Your task to perform on an android device: Search for the top rated book on goodreads. Image 0: 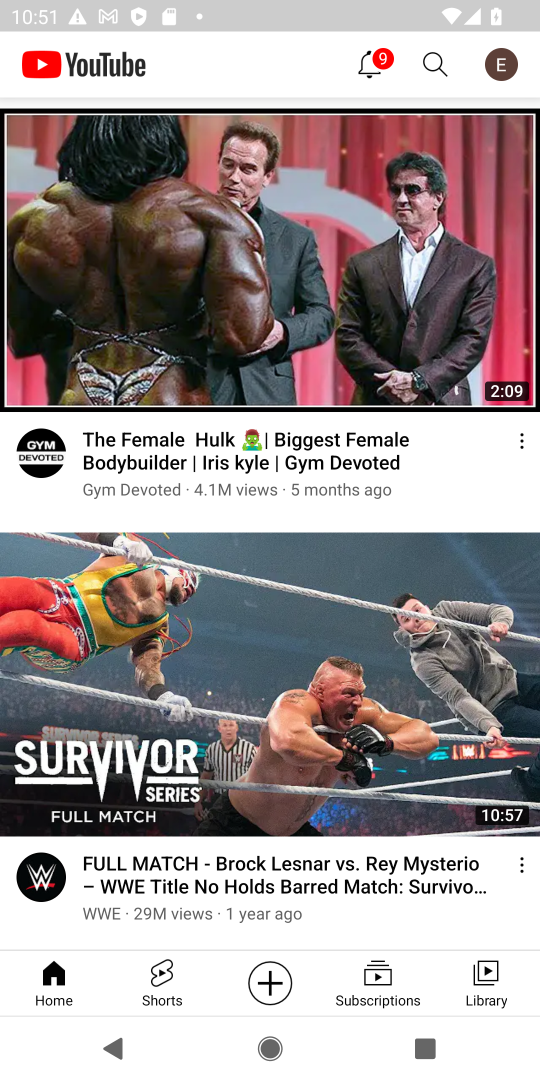
Step 0: press home button
Your task to perform on an android device: Search for the top rated book on goodreads. Image 1: 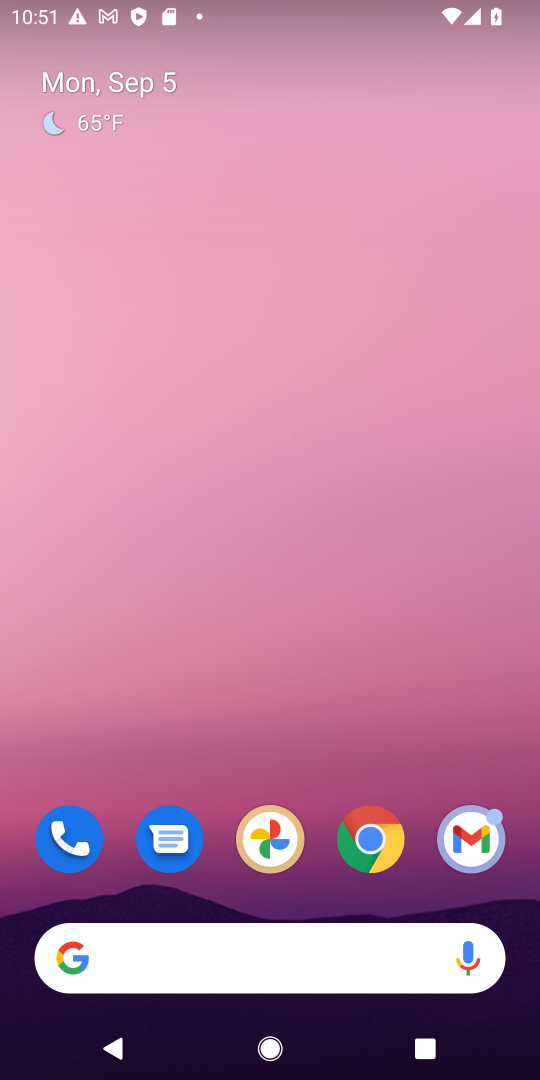
Step 1: drag from (219, 866) to (309, 18)
Your task to perform on an android device: Search for the top rated book on goodreads. Image 2: 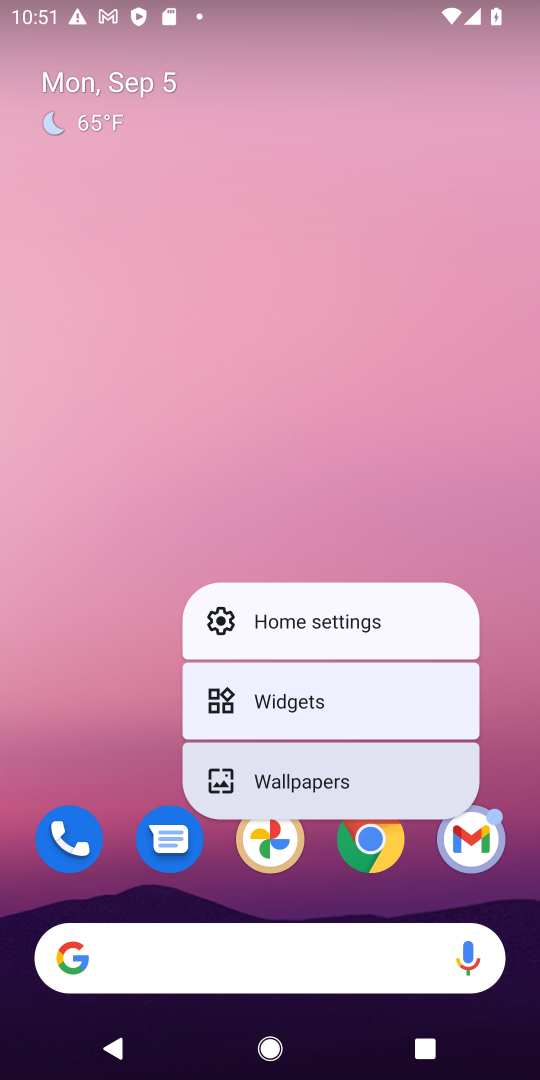
Step 2: click (173, 905)
Your task to perform on an android device: Search for the top rated book on goodreads. Image 3: 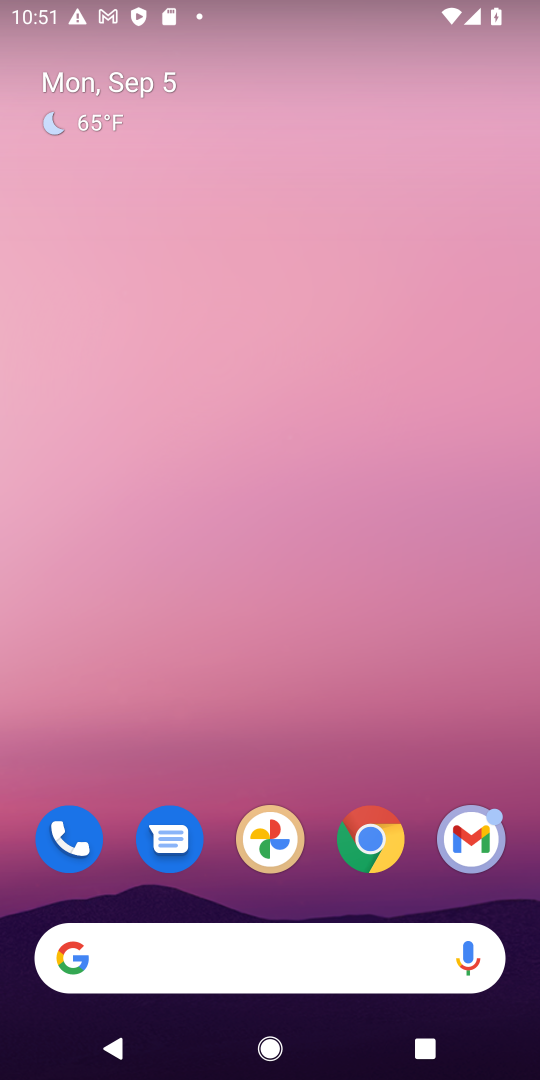
Step 3: drag from (199, 917) to (206, 187)
Your task to perform on an android device: Search for the top rated book on goodreads. Image 4: 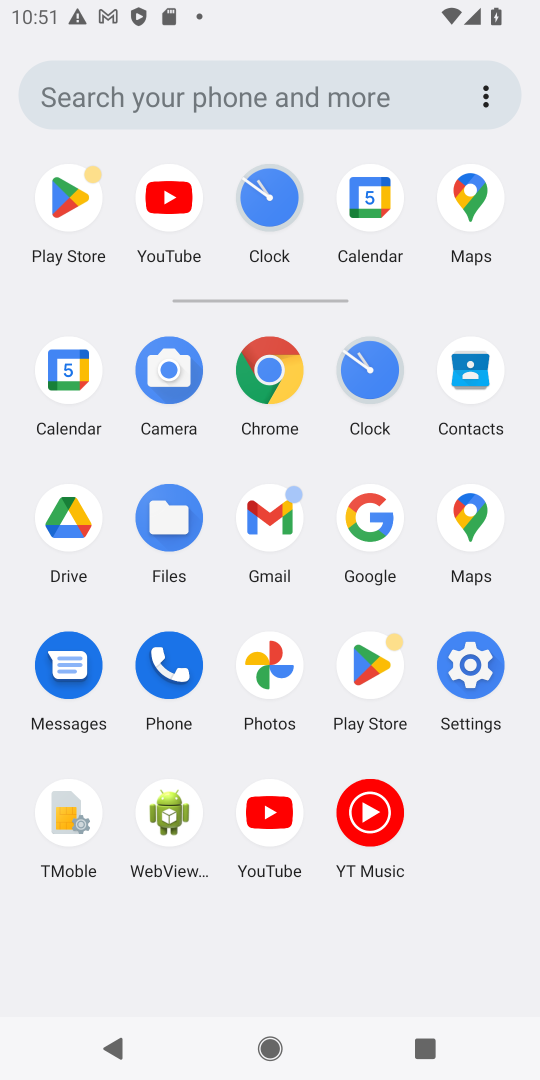
Step 4: click (356, 517)
Your task to perform on an android device: Search for the top rated book on goodreads. Image 5: 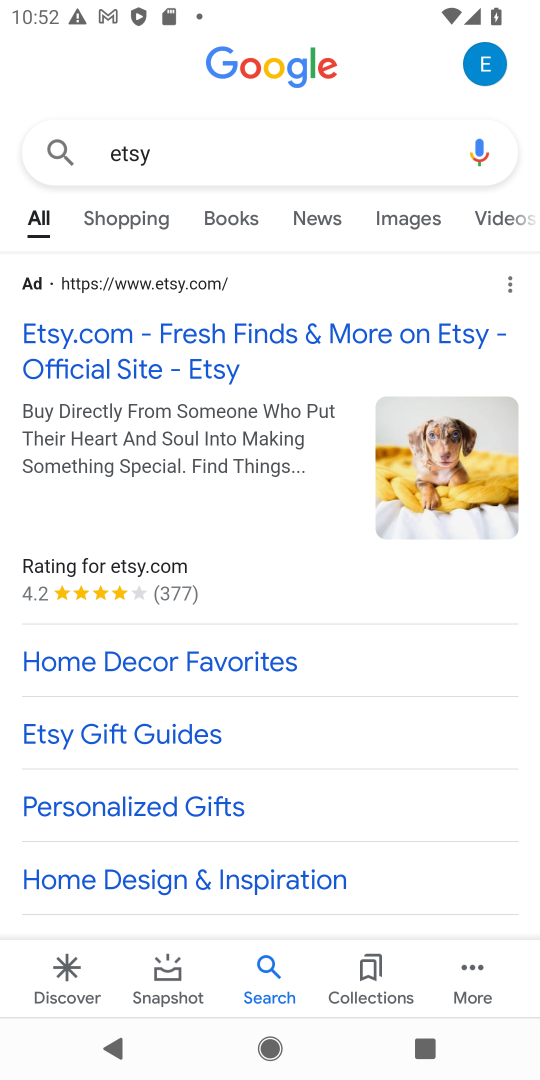
Step 5: click (291, 160)
Your task to perform on an android device: Search for the top rated book on goodreads. Image 6: 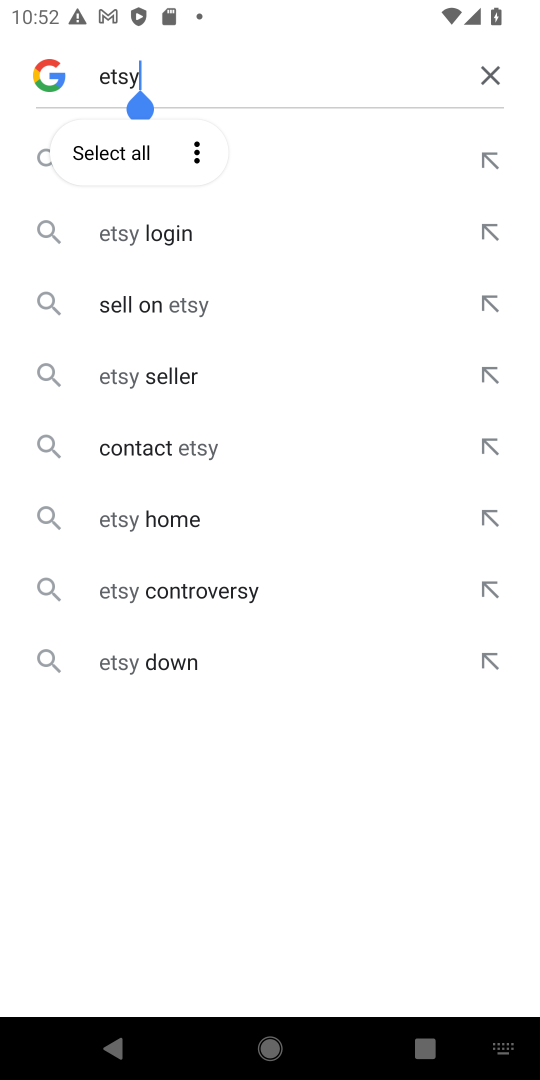
Step 6: click (496, 65)
Your task to perform on an android device: Search for the top rated book on goodreads. Image 7: 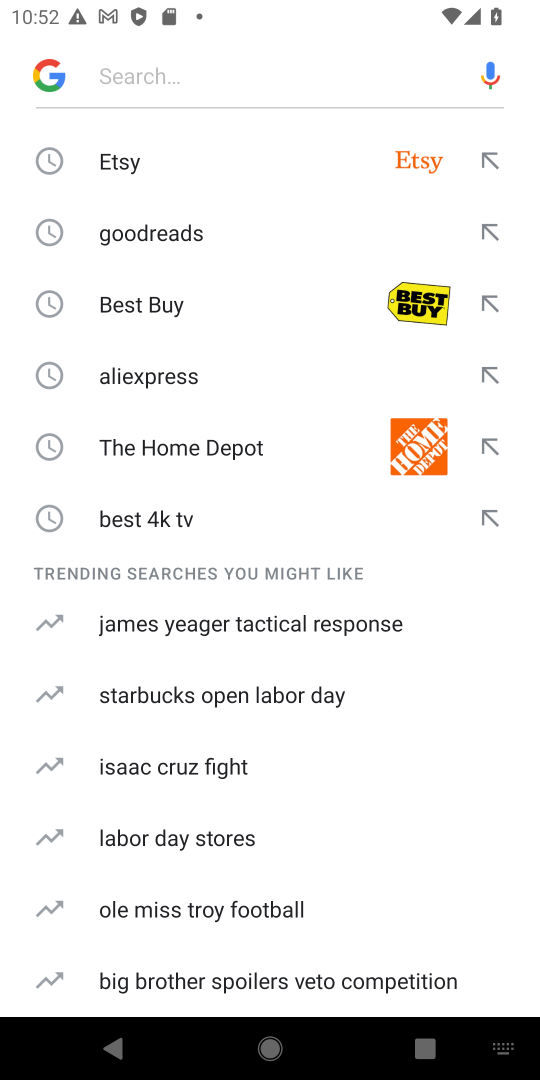
Step 7: type "goodreads"
Your task to perform on an android device: Search for the top rated book on goodreads. Image 8: 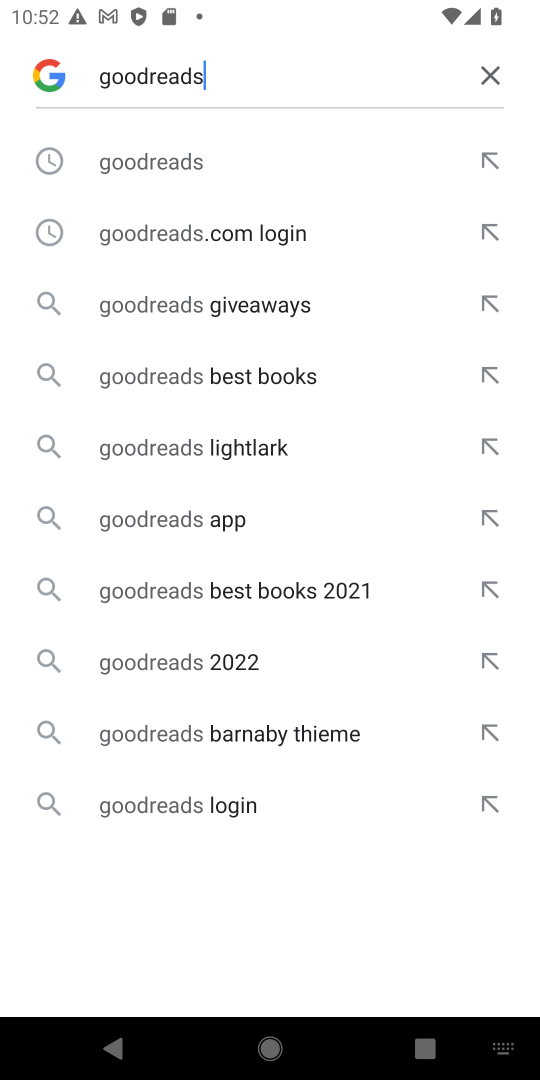
Step 8: click (152, 154)
Your task to perform on an android device: Search for the top rated book on goodreads. Image 9: 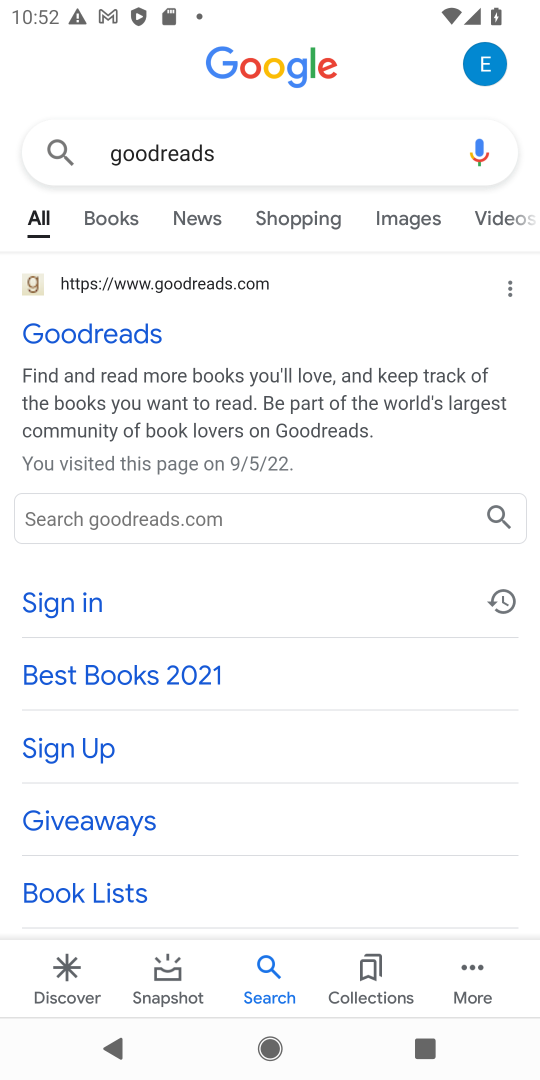
Step 9: click (106, 337)
Your task to perform on an android device: Search for the top rated book on goodreads. Image 10: 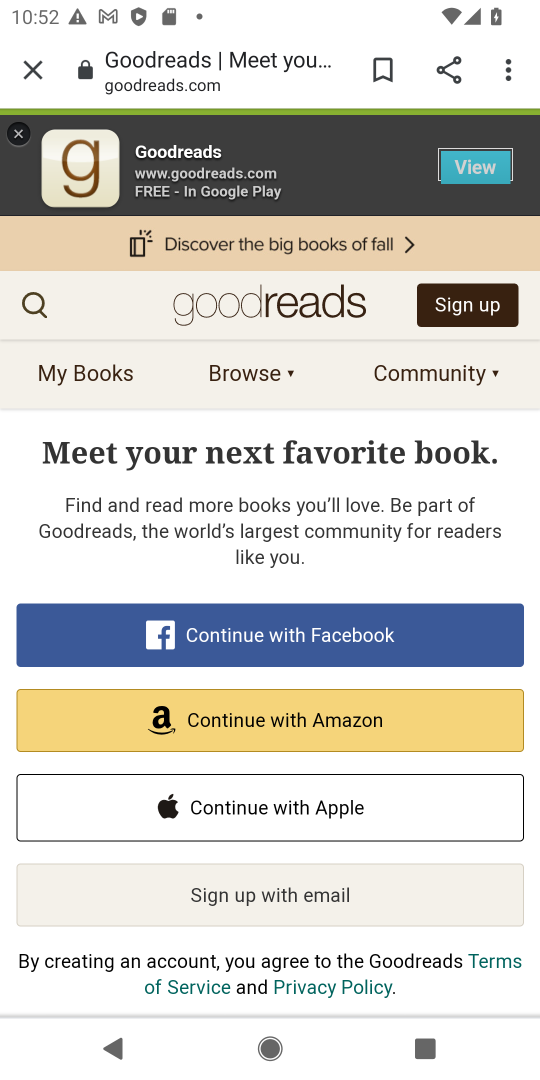
Step 10: click (42, 308)
Your task to perform on an android device: Search for the top rated book on goodreads. Image 11: 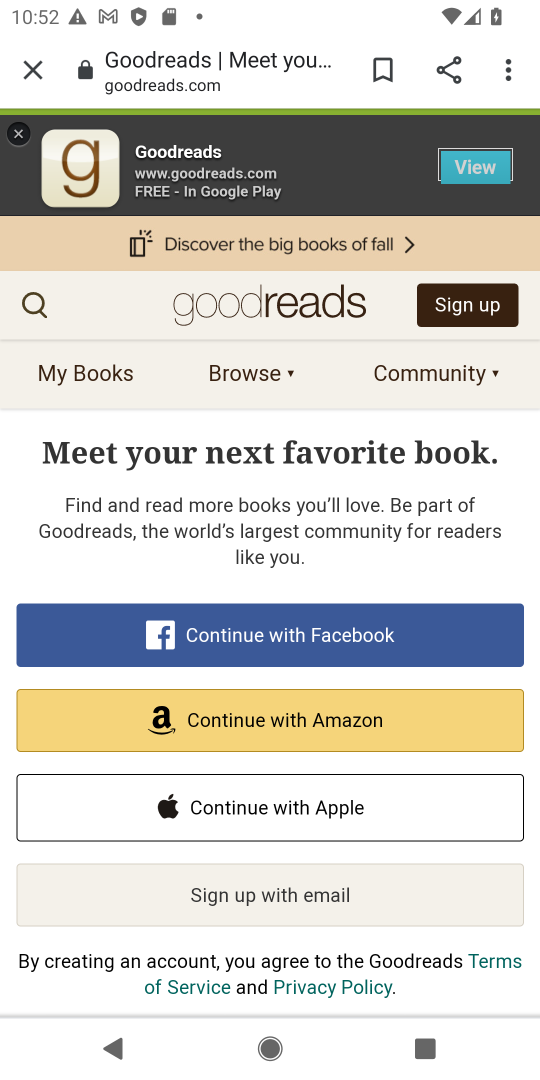
Step 11: click (34, 310)
Your task to perform on an android device: Search for the top rated book on goodreads. Image 12: 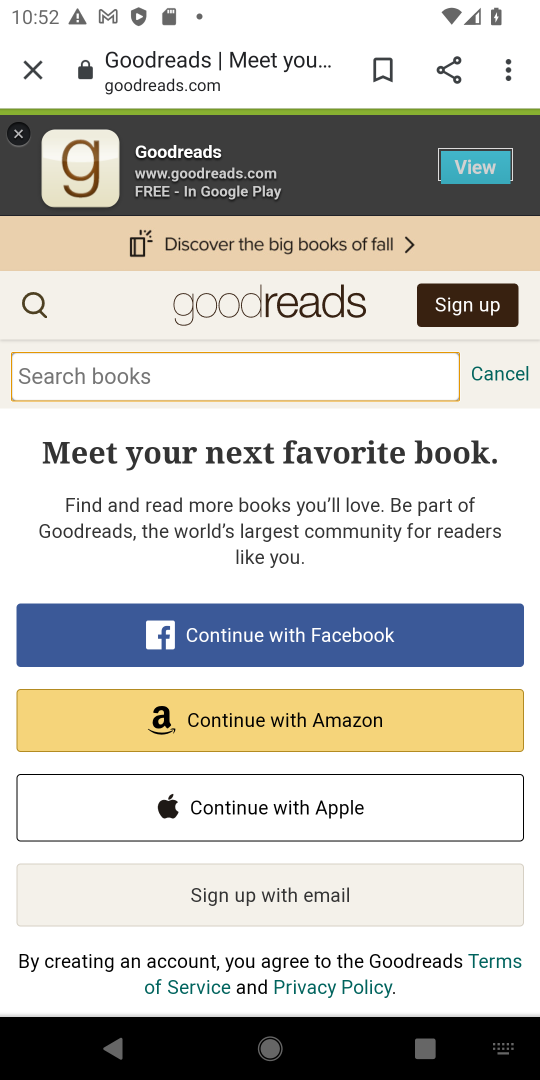
Step 12: type "top rated book"
Your task to perform on an android device: Search for the top rated book on goodreads. Image 13: 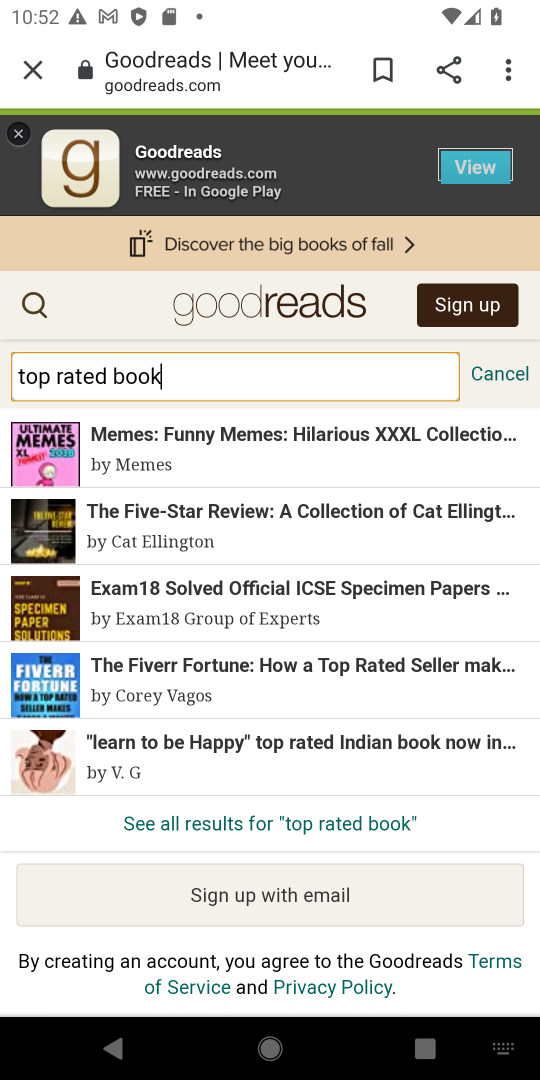
Step 13: click (284, 452)
Your task to perform on an android device: Search for the top rated book on goodreads. Image 14: 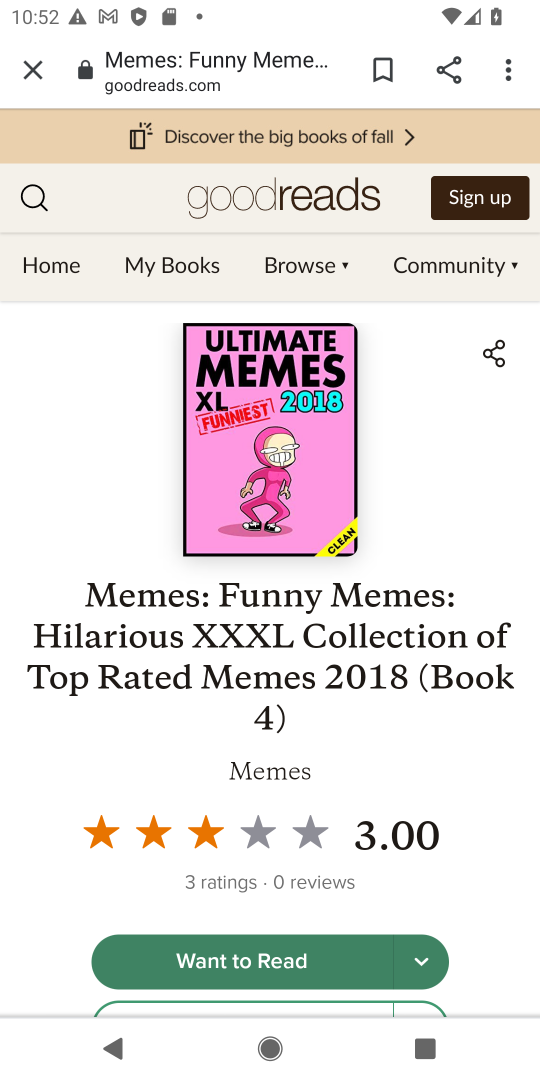
Step 14: task complete